Your task to perform on an android device: find which apps use the phone's location Image 0: 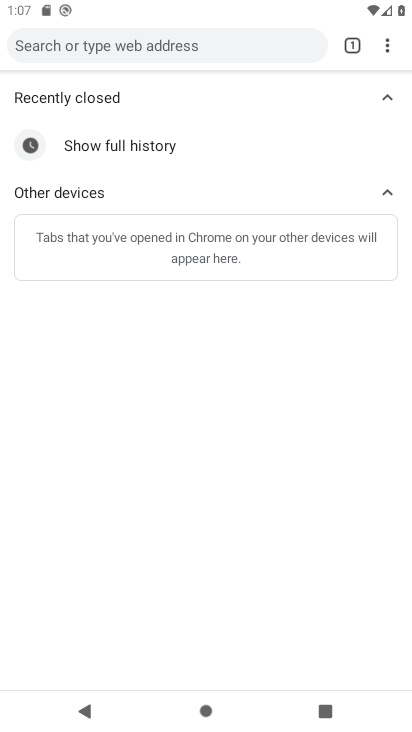
Step 0: drag from (250, 601) to (188, 290)
Your task to perform on an android device: find which apps use the phone's location Image 1: 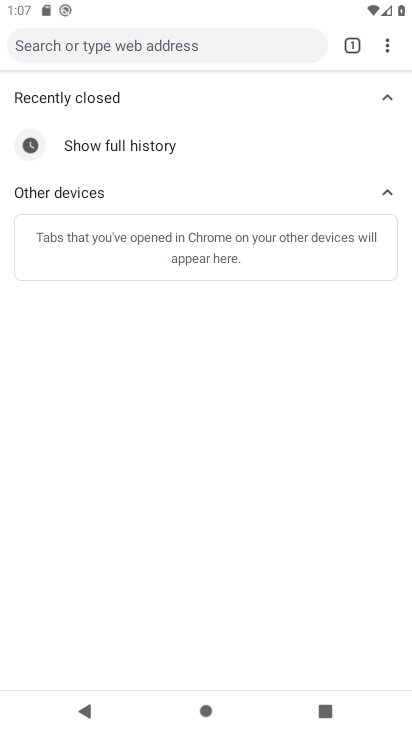
Step 1: press home button
Your task to perform on an android device: find which apps use the phone's location Image 2: 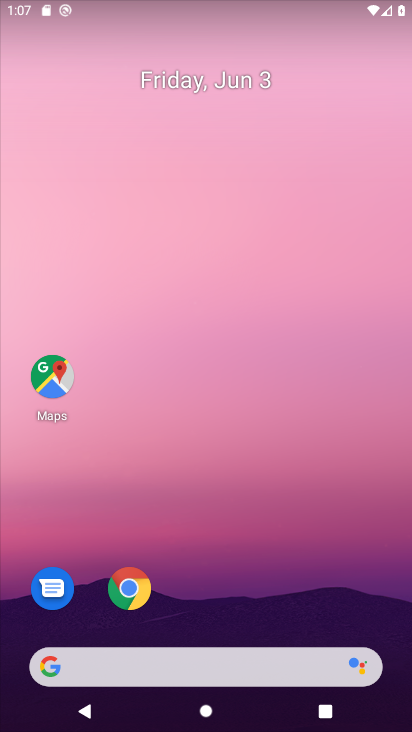
Step 2: drag from (267, 611) to (218, 126)
Your task to perform on an android device: find which apps use the phone's location Image 3: 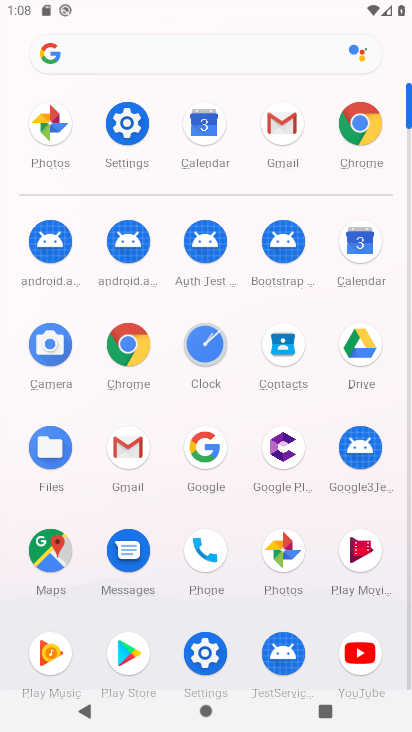
Step 3: click (123, 139)
Your task to perform on an android device: find which apps use the phone's location Image 4: 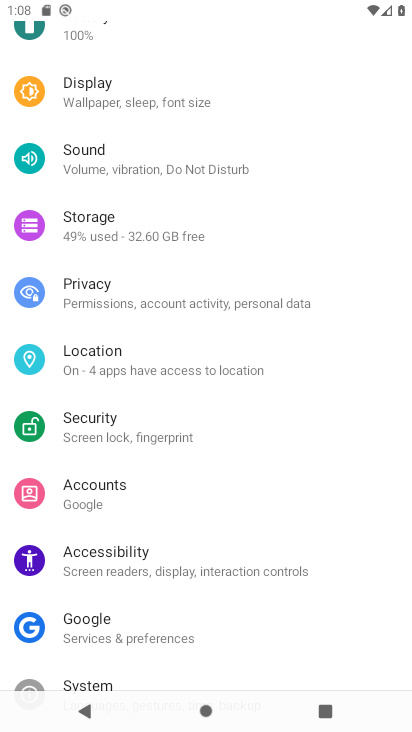
Step 4: click (177, 363)
Your task to perform on an android device: find which apps use the phone's location Image 5: 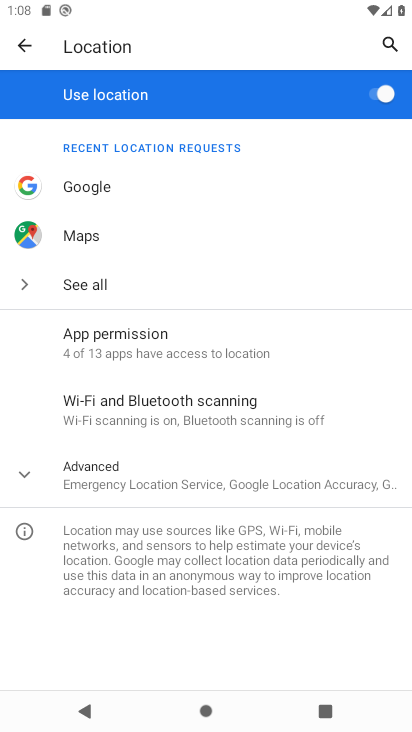
Step 5: click (189, 355)
Your task to perform on an android device: find which apps use the phone's location Image 6: 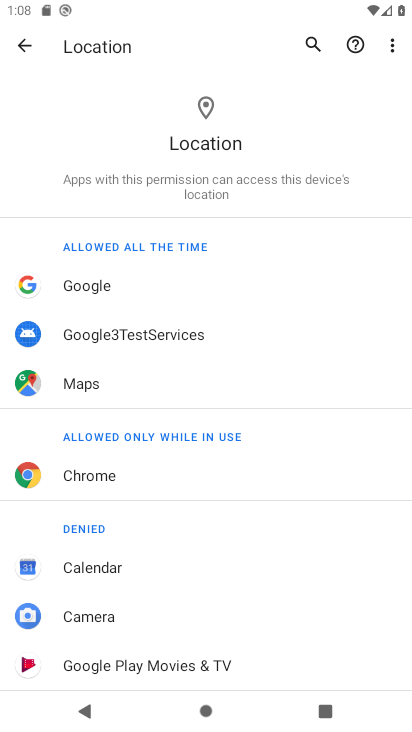
Step 6: task complete